Your task to perform on an android device: refresh tabs in the chrome app Image 0: 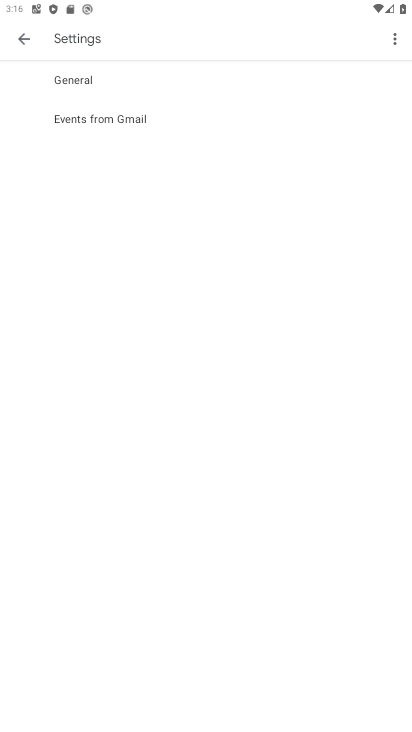
Step 0: drag from (207, 612) to (282, 352)
Your task to perform on an android device: refresh tabs in the chrome app Image 1: 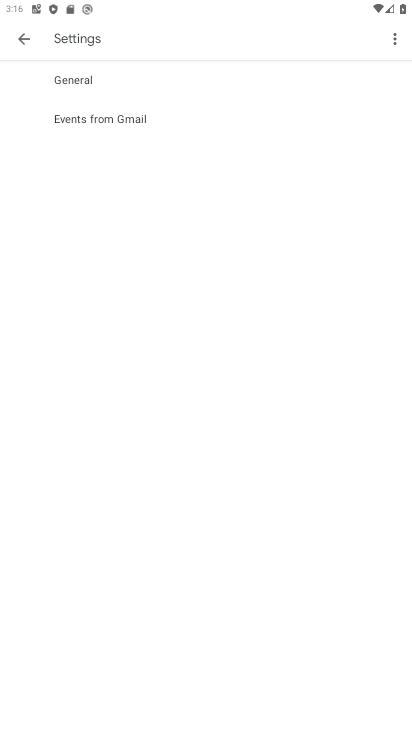
Step 1: press home button
Your task to perform on an android device: refresh tabs in the chrome app Image 2: 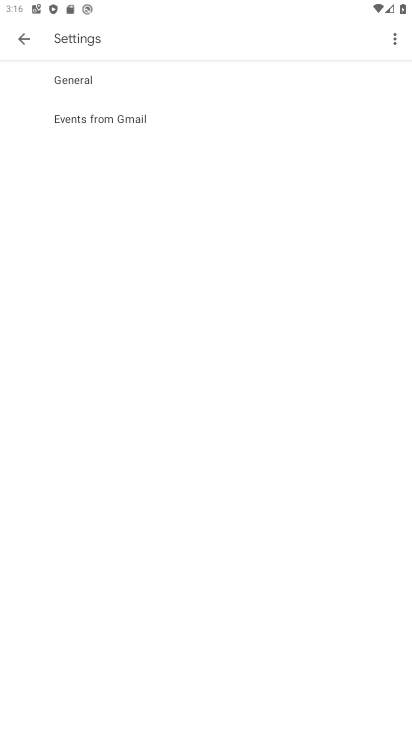
Step 2: press home button
Your task to perform on an android device: refresh tabs in the chrome app Image 3: 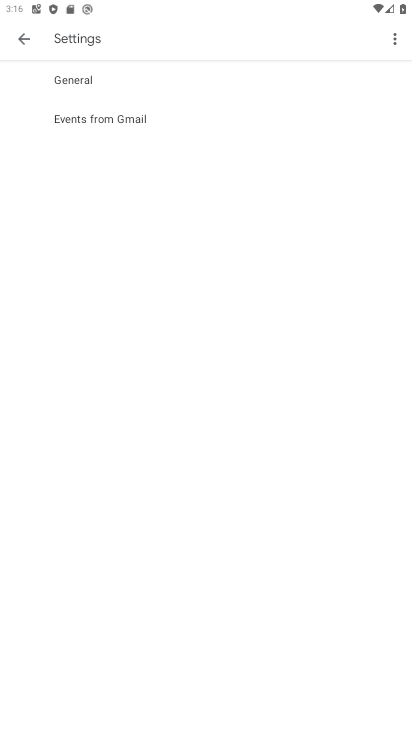
Step 3: click (338, 217)
Your task to perform on an android device: refresh tabs in the chrome app Image 4: 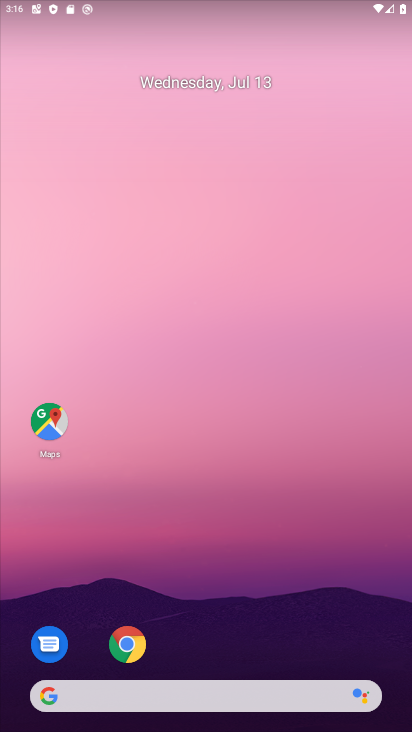
Step 4: drag from (186, 668) to (310, 48)
Your task to perform on an android device: refresh tabs in the chrome app Image 5: 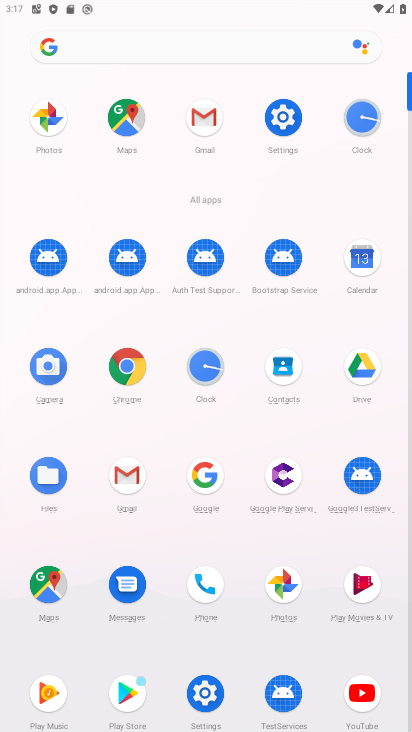
Step 5: click (132, 366)
Your task to perform on an android device: refresh tabs in the chrome app Image 6: 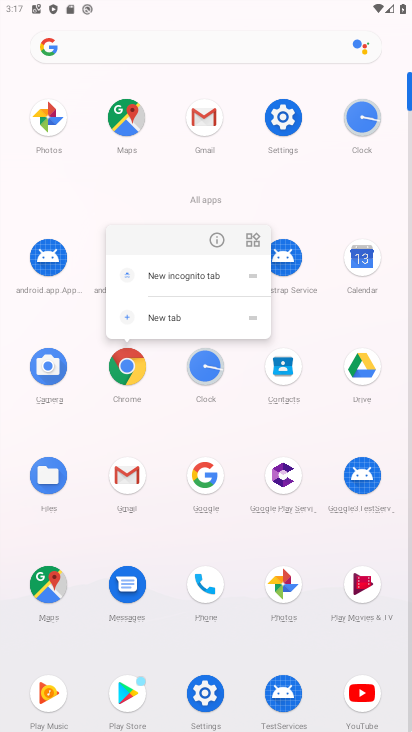
Step 6: click (219, 242)
Your task to perform on an android device: refresh tabs in the chrome app Image 7: 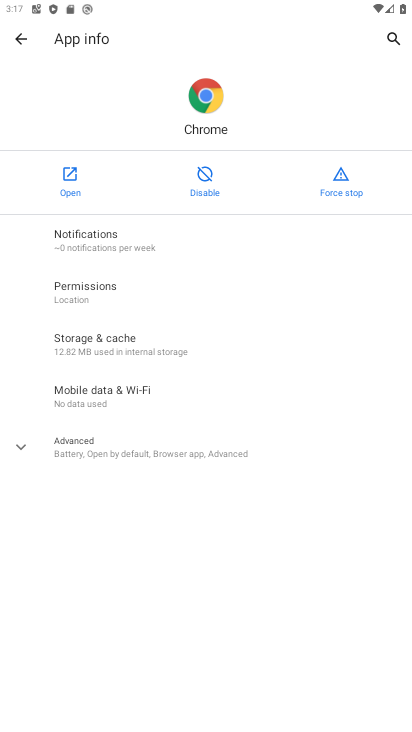
Step 7: click (78, 182)
Your task to perform on an android device: refresh tabs in the chrome app Image 8: 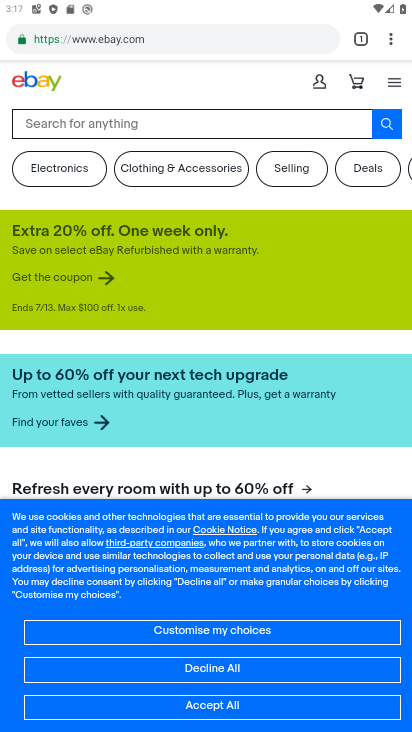
Step 8: click (393, 39)
Your task to perform on an android device: refresh tabs in the chrome app Image 9: 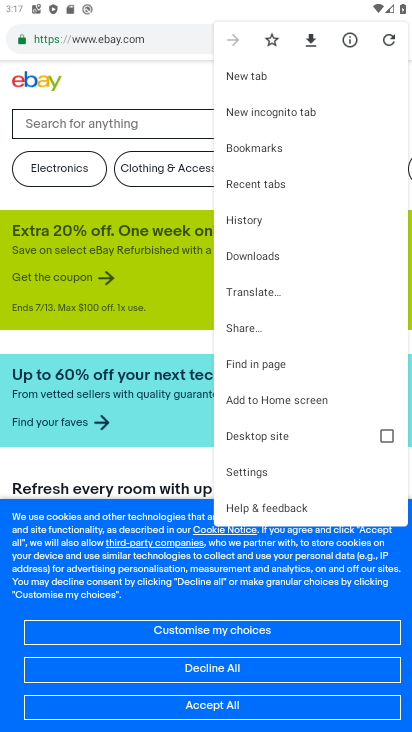
Step 9: click (388, 39)
Your task to perform on an android device: refresh tabs in the chrome app Image 10: 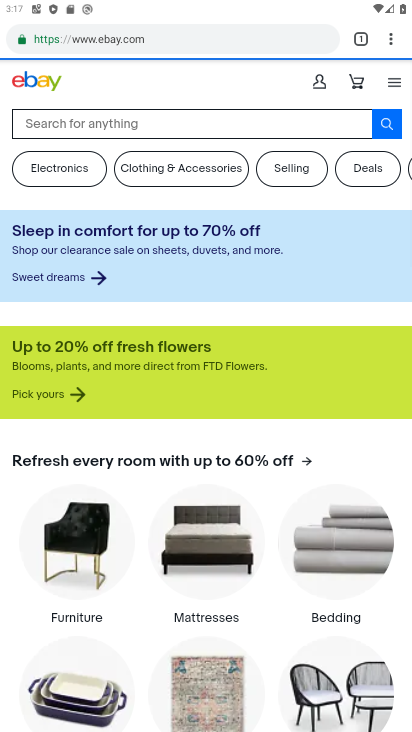
Step 10: task complete